Your task to perform on an android device: turn on bluetooth scan Image 0: 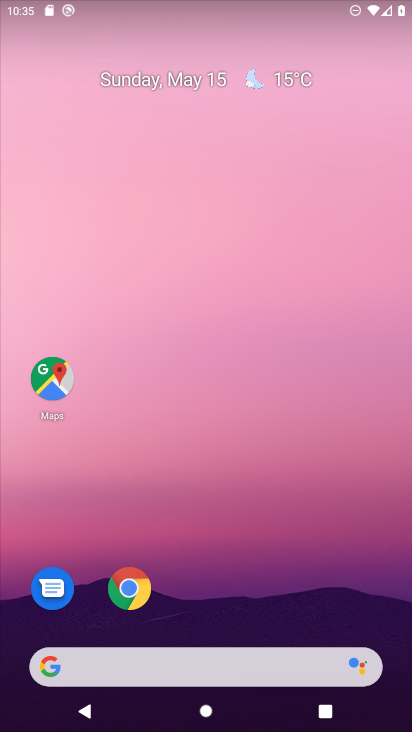
Step 0: drag from (201, 521) to (314, 20)
Your task to perform on an android device: turn on bluetooth scan Image 1: 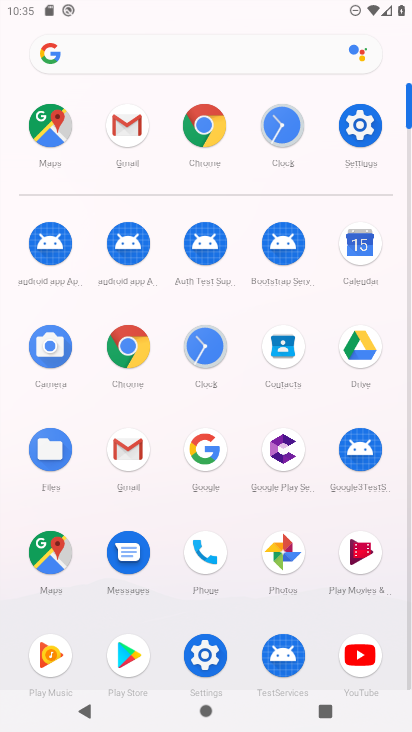
Step 1: click (209, 658)
Your task to perform on an android device: turn on bluetooth scan Image 2: 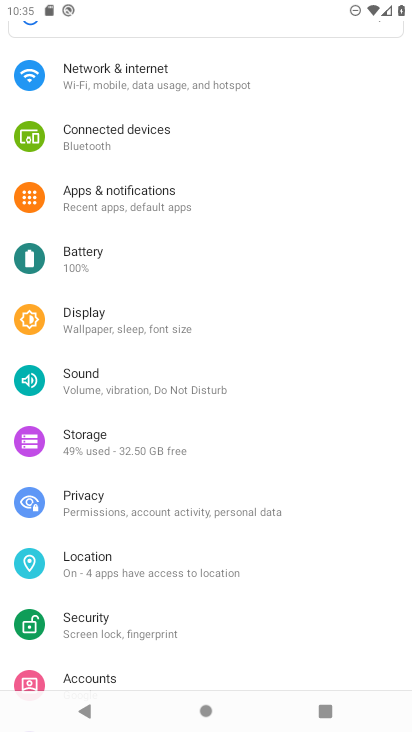
Step 2: click (100, 569)
Your task to perform on an android device: turn on bluetooth scan Image 3: 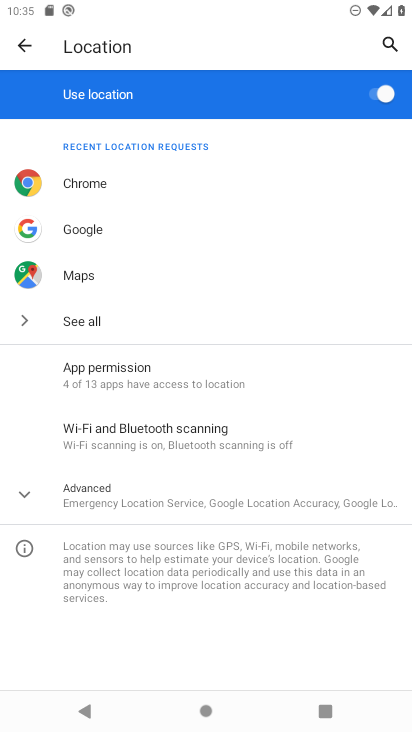
Step 3: click (119, 433)
Your task to perform on an android device: turn on bluetooth scan Image 4: 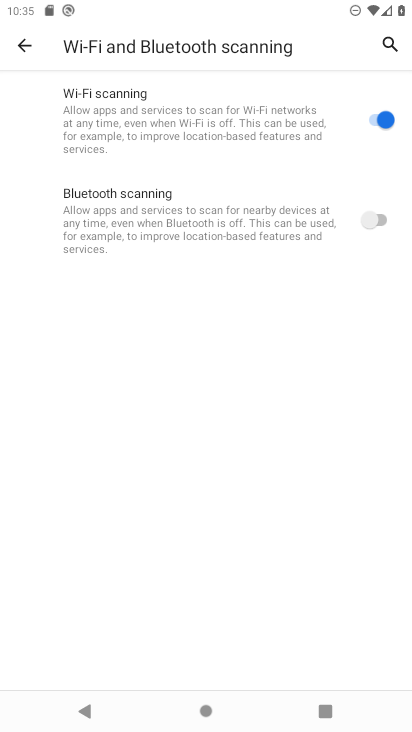
Step 4: click (351, 229)
Your task to perform on an android device: turn on bluetooth scan Image 5: 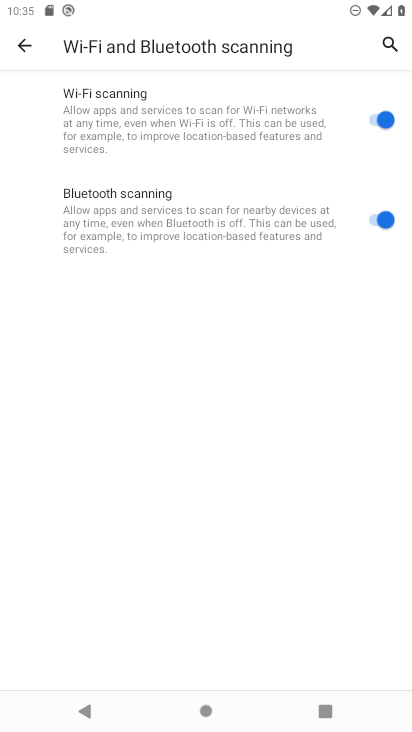
Step 5: task complete